Your task to perform on an android device: turn on javascript in the chrome app Image 0: 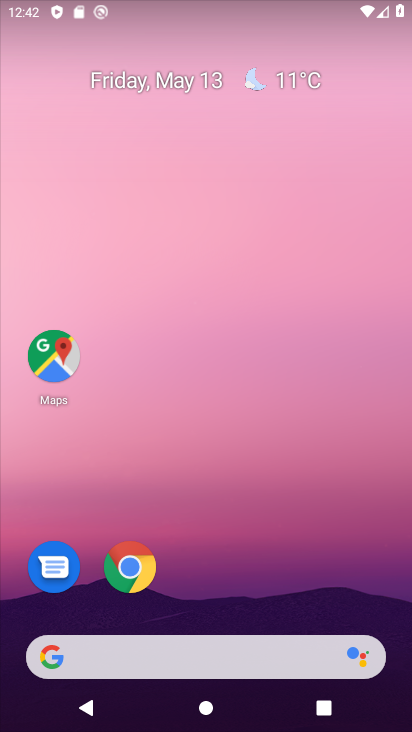
Step 0: click (210, 655)
Your task to perform on an android device: turn on javascript in the chrome app Image 1: 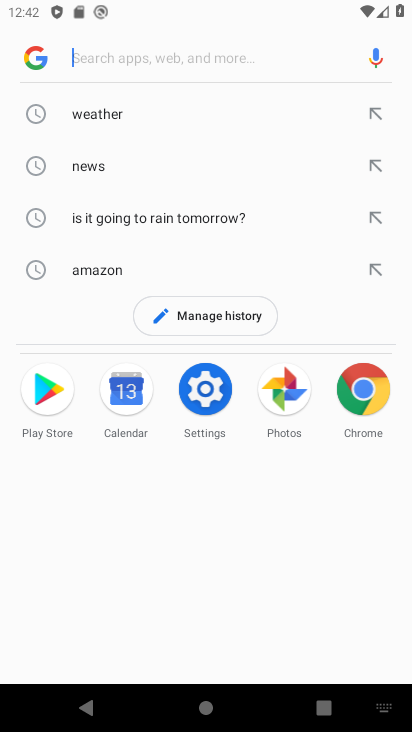
Step 1: click (126, 108)
Your task to perform on an android device: turn on javascript in the chrome app Image 2: 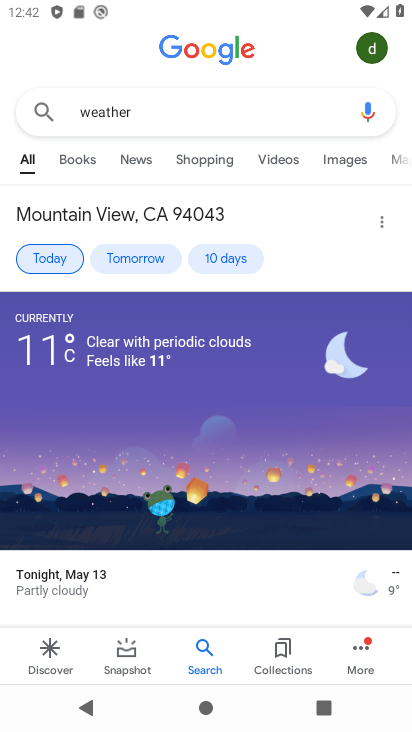
Step 2: press back button
Your task to perform on an android device: turn on javascript in the chrome app Image 3: 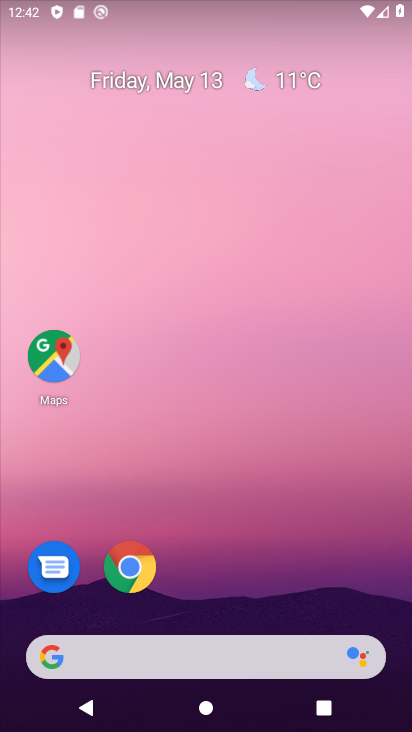
Step 3: click (162, 575)
Your task to perform on an android device: turn on javascript in the chrome app Image 4: 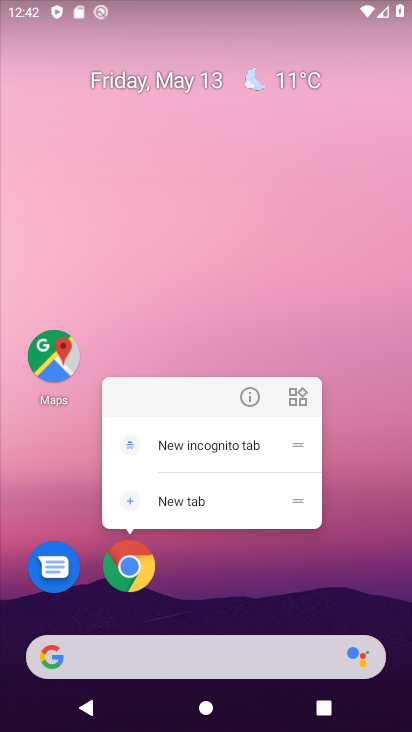
Step 4: click (142, 569)
Your task to perform on an android device: turn on javascript in the chrome app Image 5: 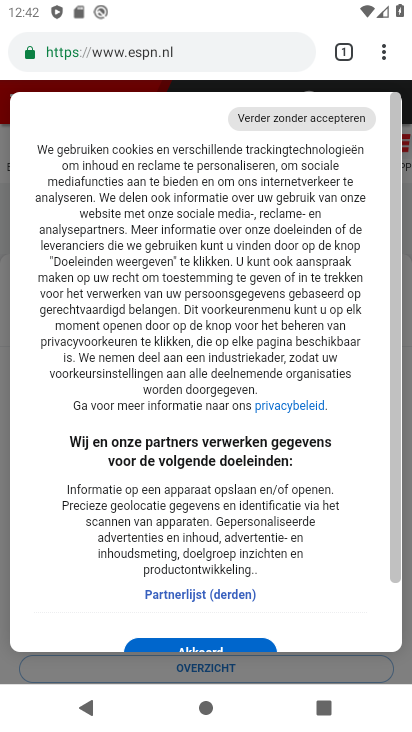
Step 5: click (380, 53)
Your task to perform on an android device: turn on javascript in the chrome app Image 6: 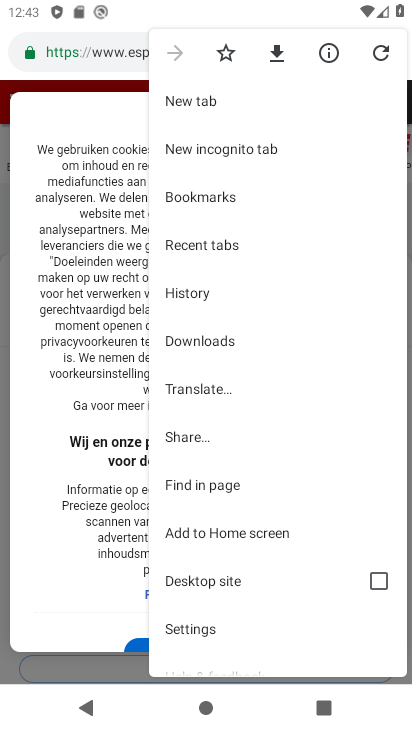
Step 6: click (196, 630)
Your task to perform on an android device: turn on javascript in the chrome app Image 7: 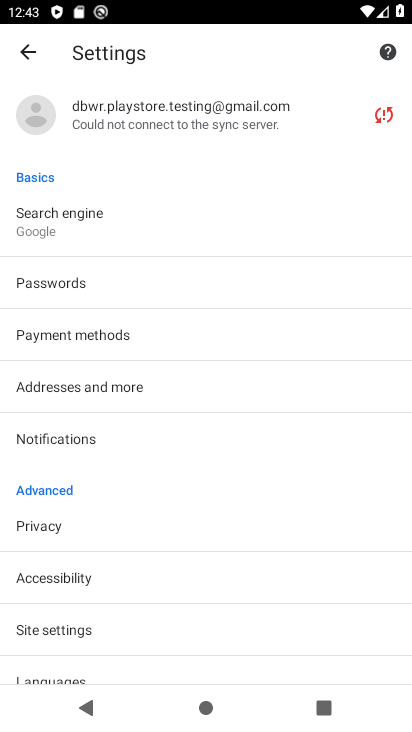
Step 7: drag from (158, 611) to (178, 259)
Your task to perform on an android device: turn on javascript in the chrome app Image 8: 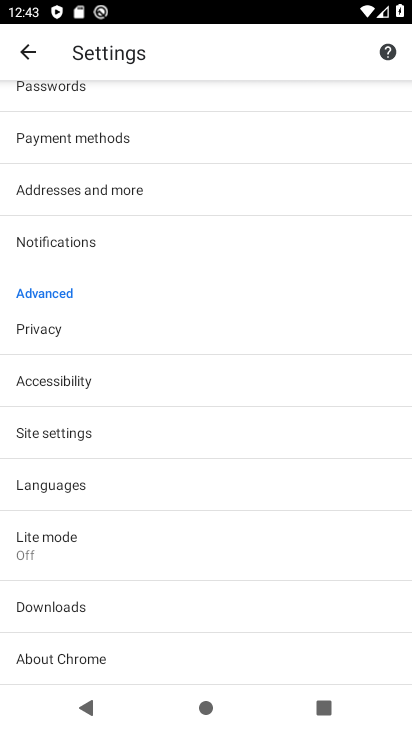
Step 8: click (79, 433)
Your task to perform on an android device: turn on javascript in the chrome app Image 9: 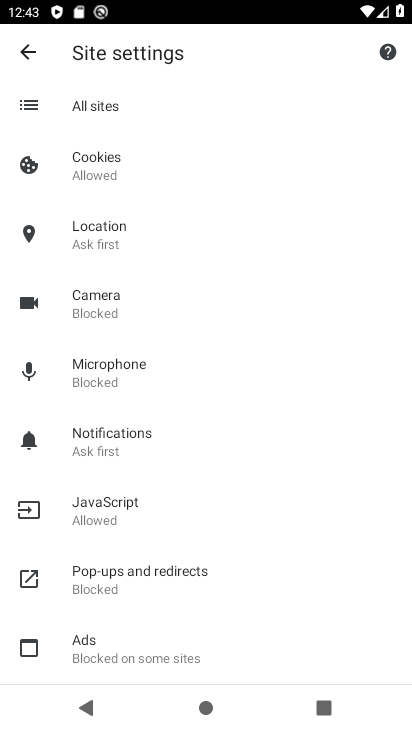
Step 9: click (120, 504)
Your task to perform on an android device: turn on javascript in the chrome app Image 10: 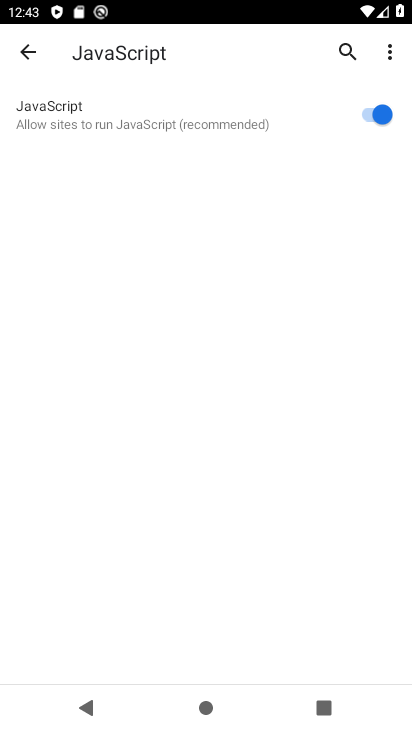
Step 10: task complete